Your task to perform on an android device: Go to internet settings Image 0: 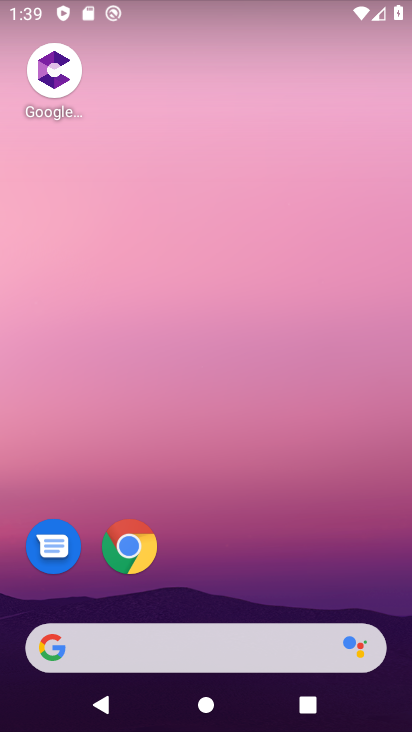
Step 0: drag from (230, 620) to (212, 69)
Your task to perform on an android device: Go to internet settings Image 1: 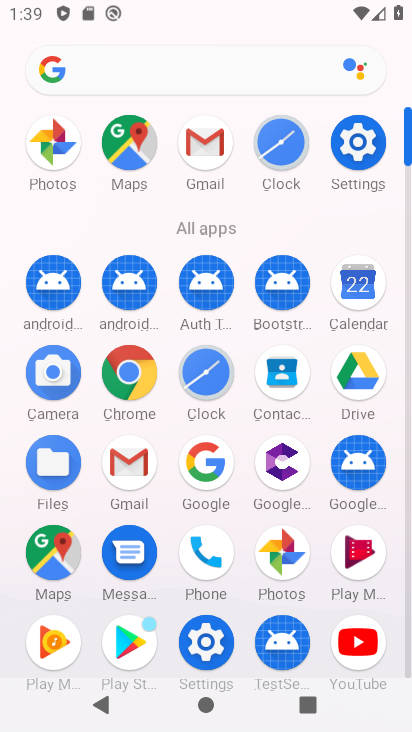
Step 1: click (355, 156)
Your task to perform on an android device: Go to internet settings Image 2: 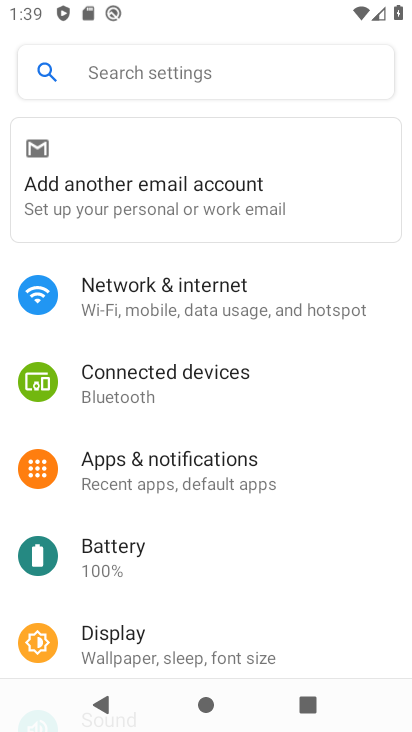
Step 2: click (242, 322)
Your task to perform on an android device: Go to internet settings Image 3: 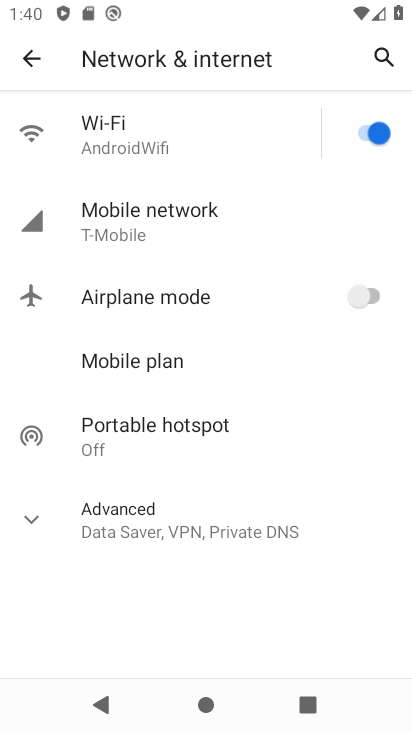
Step 3: click (153, 222)
Your task to perform on an android device: Go to internet settings Image 4: 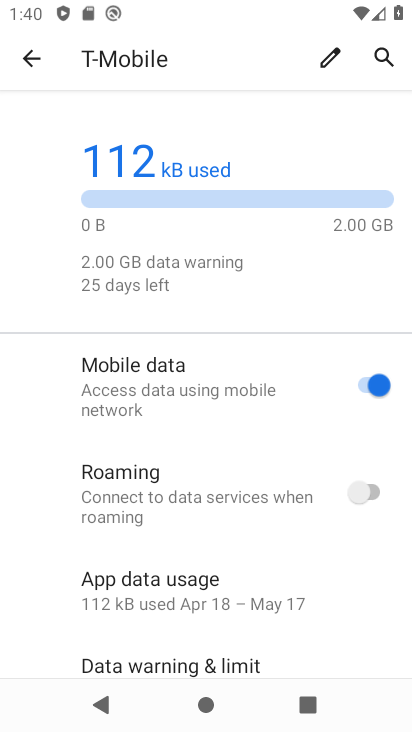
Step 4: task complete